Your task to perform on an android device: change notification settings in the gmail app Image 0: 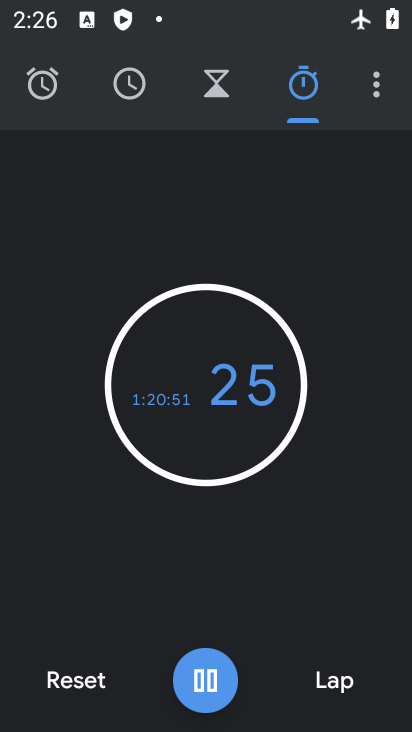
Step 0: press home button
Your task to perform on an android device: change notification settings in the gmail app Image 1: 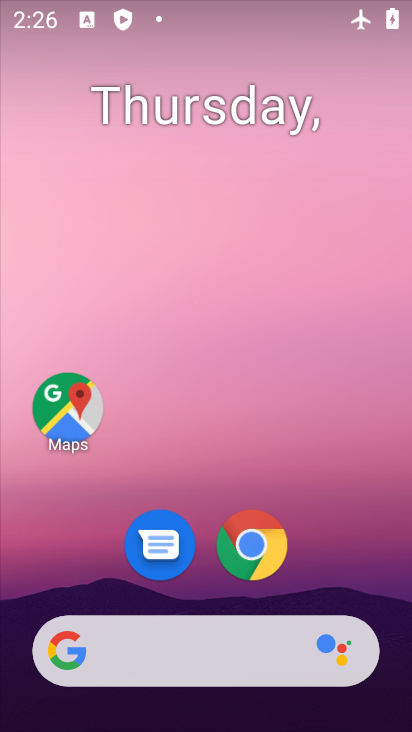
Step 1: drag from (202, 728) to (221, 200)
Your task to perform on an android device: change notification settings in the gmail app Image 2: 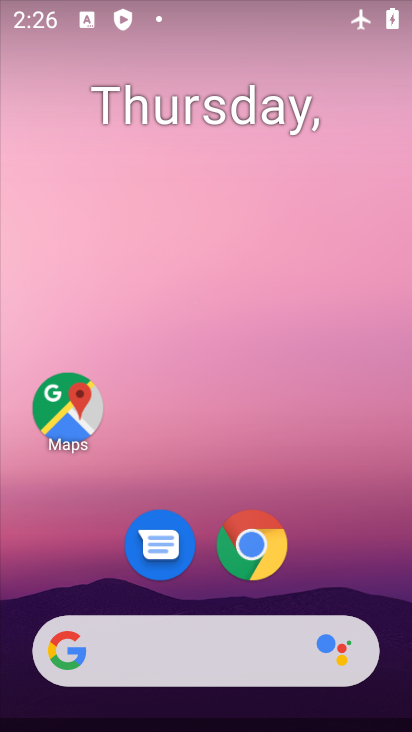
Step 2: click (313, 276)
Your task to perform on an android device: change notification settings in the gmail app Image 3: 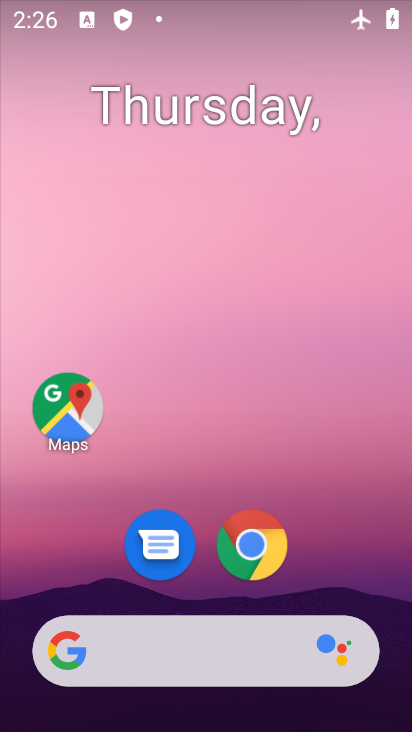
Step 3: drag from (196, 723) to (270, 212)
Your task to perform on an android device: change notification settings in the gmail app Image 4: 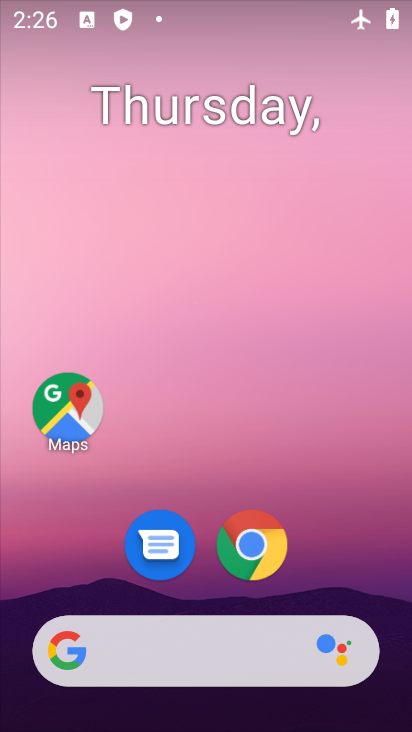
Step 4: drag from (209, 480) to (194, 94)
Your task to perform on an android device: change notification settings in the gmail app Image 5: 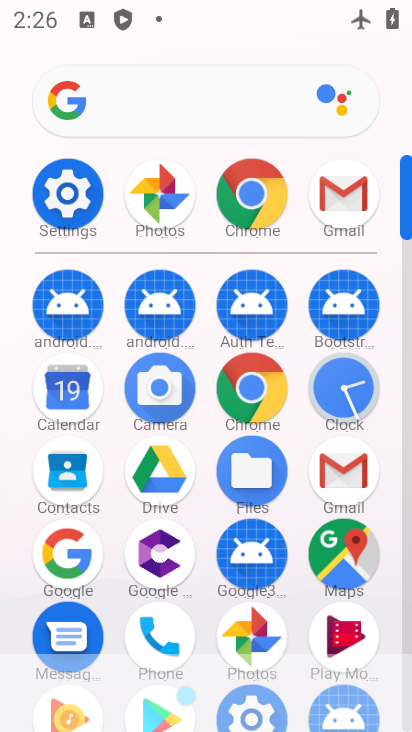
Step 5: click (343, 486)
Your task to perform on an android device: change notification settings in the gmail app Image 6: 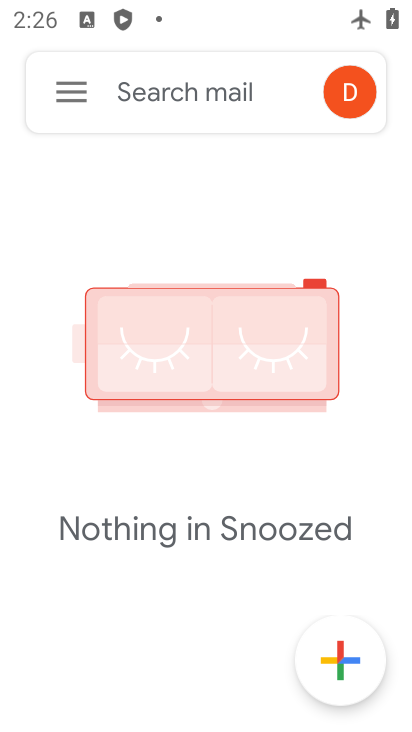
Step 6: click (61, 94)
Your task to perform on an android device: change notification settings in the gmail app Image 7: 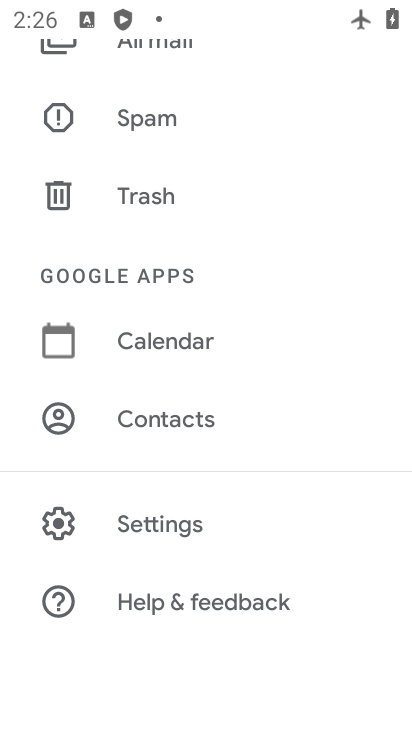
Step 7: click (200, 516)
Your task to perform on an android device: change notification settings in the gmail app Image 8: 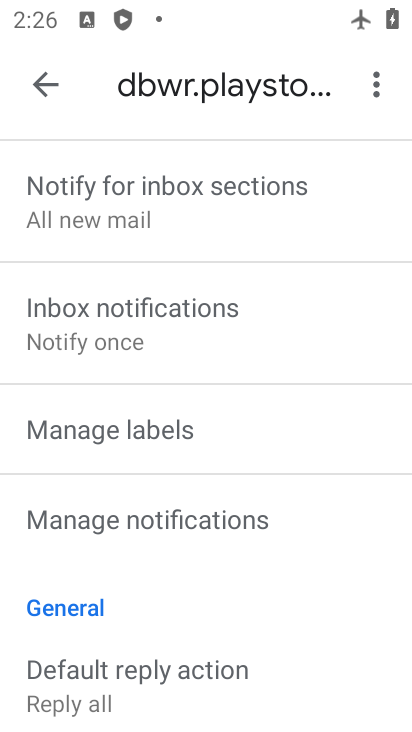
Step 8: click (171, 522)
Your task to perform on an android device: change notification settings in the gmail app Image 9: 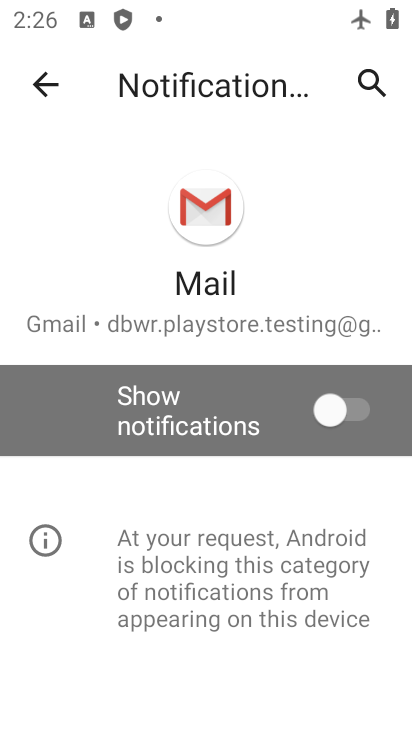
Step 9: click (358, 414)
Your task to perform on an android device: change notification settings in the gmail app Image 10: 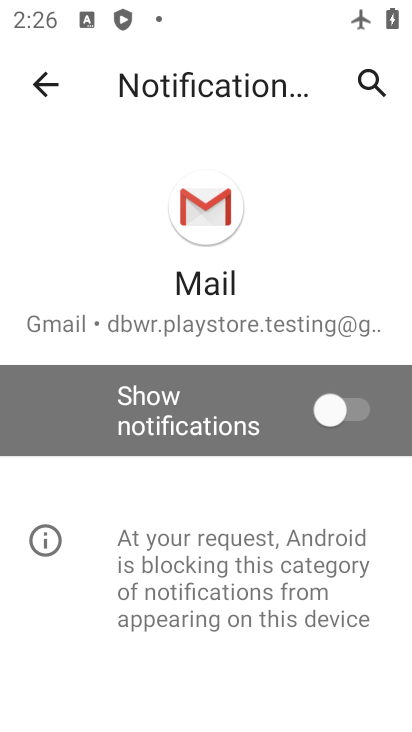
Step 10: click (318, 400)
Your task to perform on an android device: change notification settings in the gmail app Image 11: 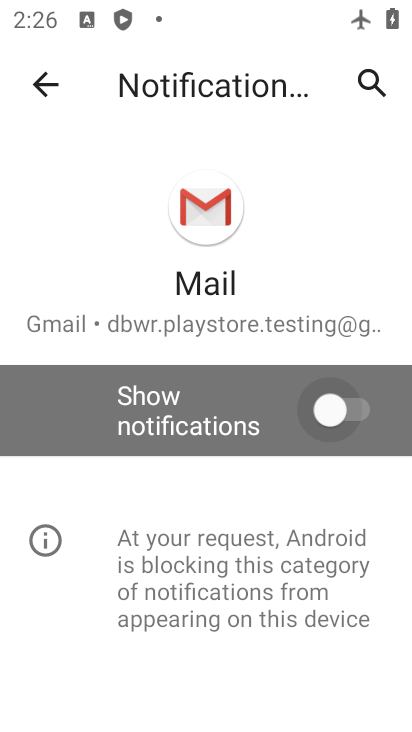
Step 11: click (318, 400)
Your task to perform on an android device: change notification settings in the gmail app Image 12: 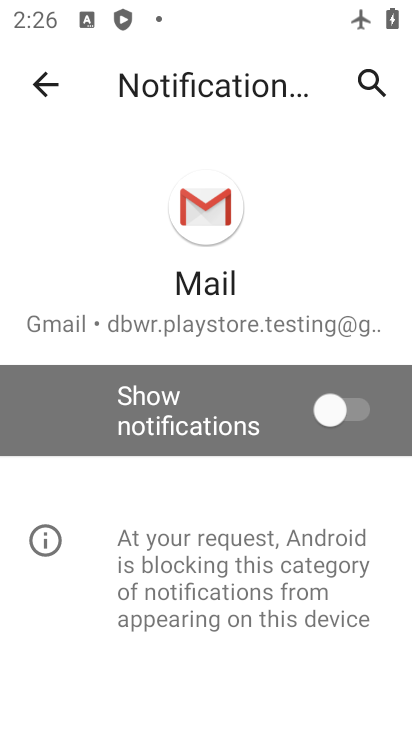
Step 12: task complete